Your task to perform on an android device: Turn on the flashlight Image 0: 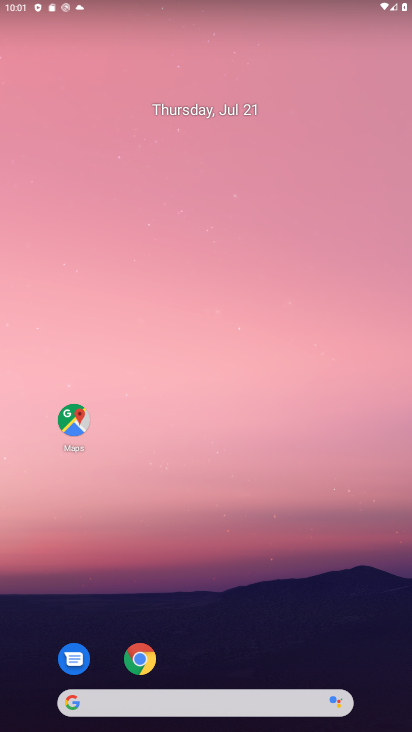
Step 0: drag from (269, 631) to (269, 35)
Your task to perform on an android device: Turn on the flashlight Image 1: 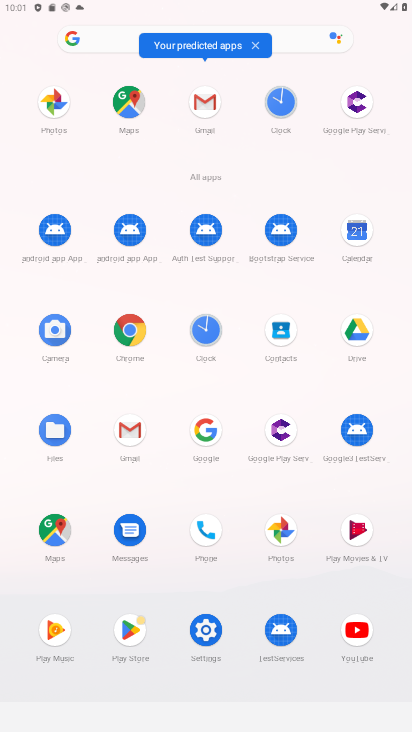
Step 1: click (218, 654)
Your task to perform on an android device: Turn on the flashlight Image 2: 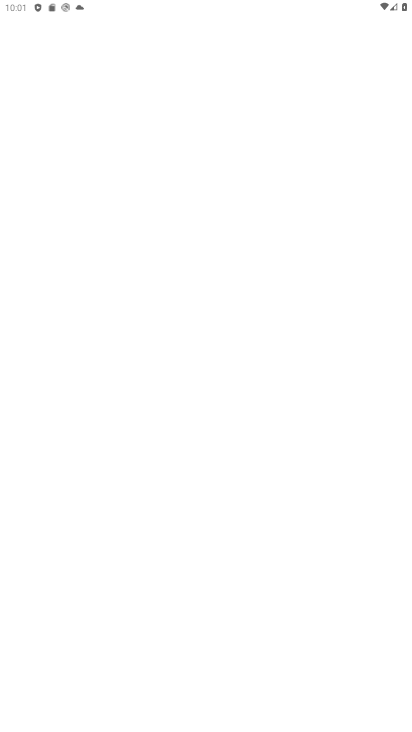
Step 2: task complete